Your task to perform on an android device: turn vacation reply on in the gmail app Image 0: 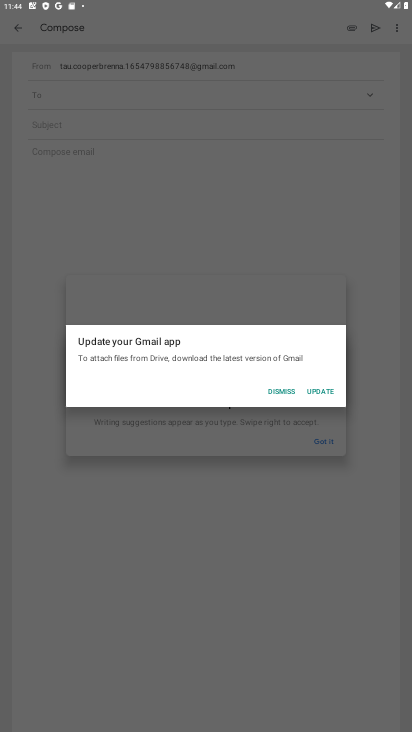
Step 0: press home button
Your task to perform on an android device: turn vacation reply on in the gmail app Image 1: 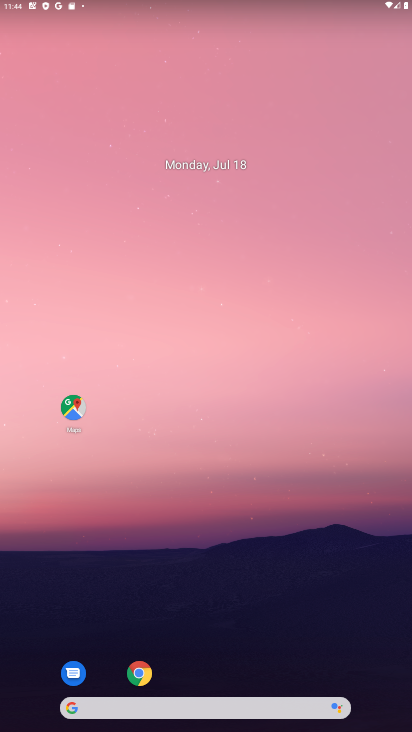
Step 1: drag from (214, 726) to (279, 222)
Your task to perform on an android device: turn vacation reply on in the gmail app Image 2: 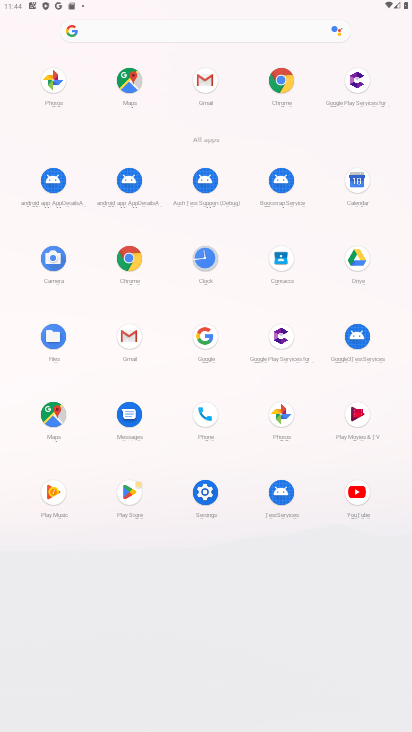
Step 2: click (207, 76)
Your task to perform on an android device: turn vacation reply on in the gmail app Image 3: 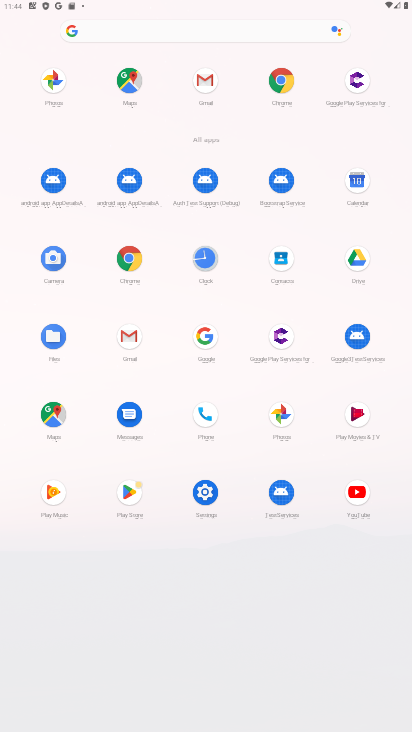
Step 3: click (207, 76)
Your task to perform on an android device: turn vacation reply on in the gmail app Image 4: 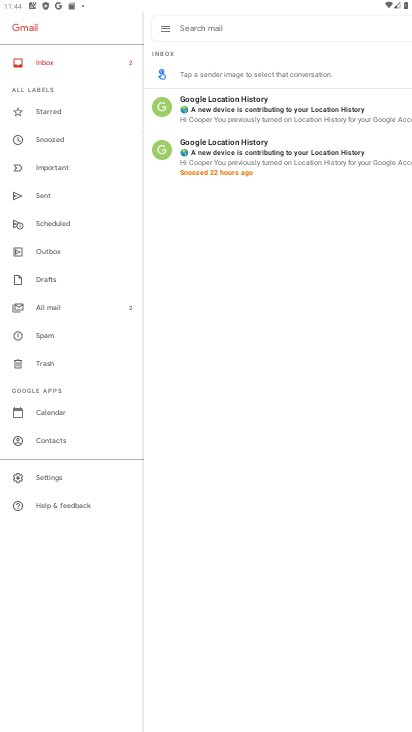
Step 4: click (64, 478)
Your task to perform on an android device: turn vacation reply on in the gmail app Image 5: 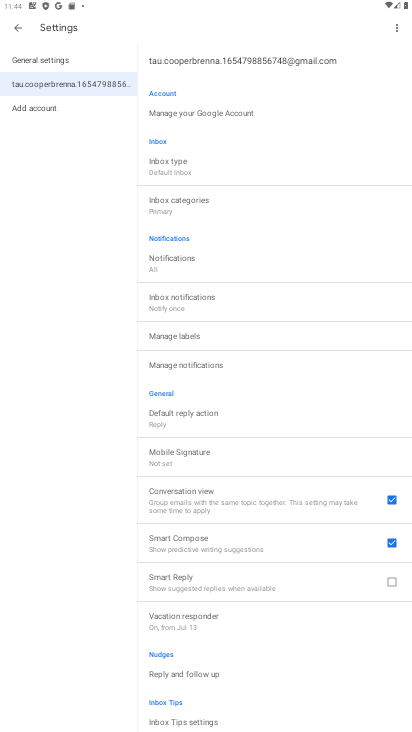
Step 5: click (220, 608)
Your task to perform on an android device: turn vacation reply on in the gmail app Image 6: 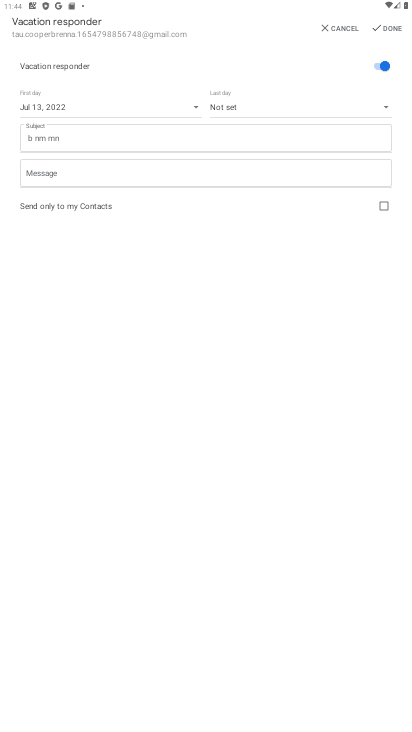
Step 6: click (391, 24)
Your task to perform on an android device: turn vacation reply on in the gmail app Image 7: 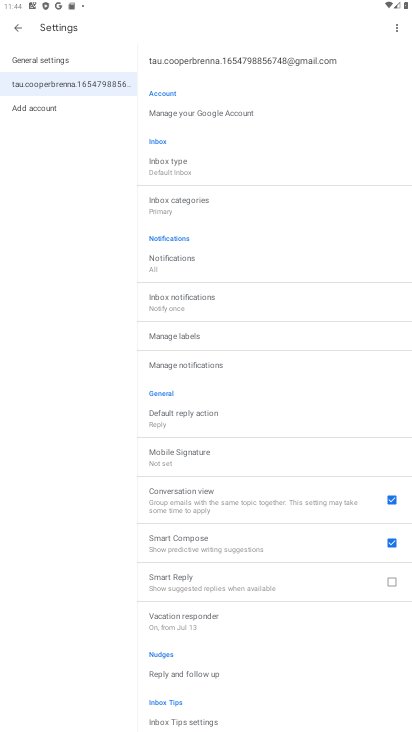
Step 7: task complete